Your task to perform on an android device: toggle improve location accuracy Image 0: 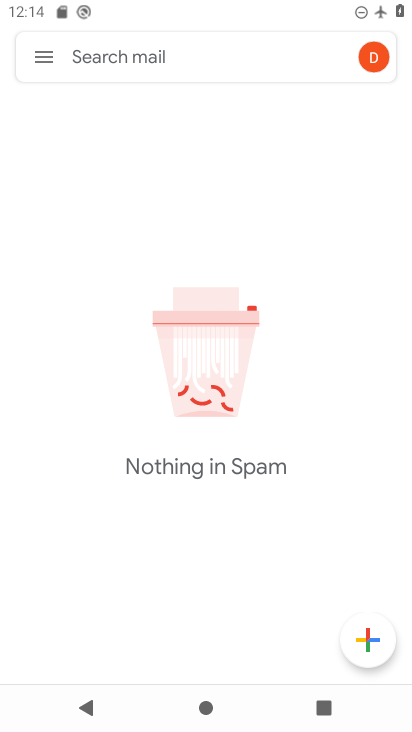
Step 0: press home button
Your task to perform on an android device: toggle improve location accuracy Image 1: 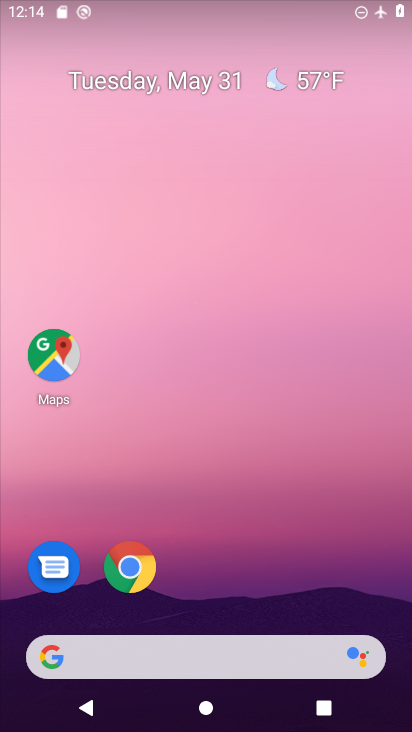
Step 1: drag from (222, 580) to (199, 120)
Your task to perform on an android device: toggle improve location accuracy Image 2: 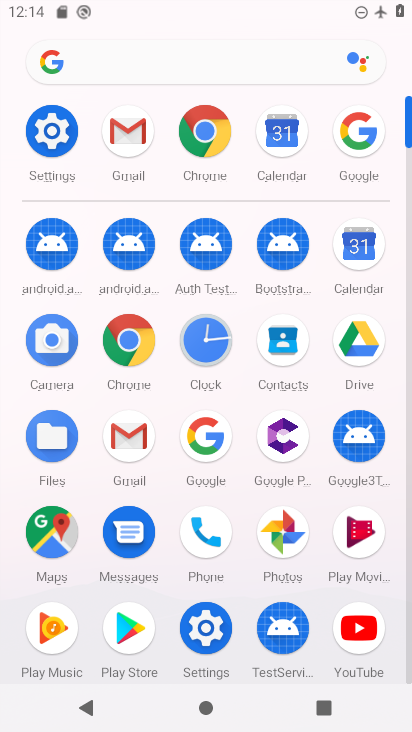
Step 2: click (53, 145)
Your task to perform on an android device: toggle improve location accuracy Image 3: 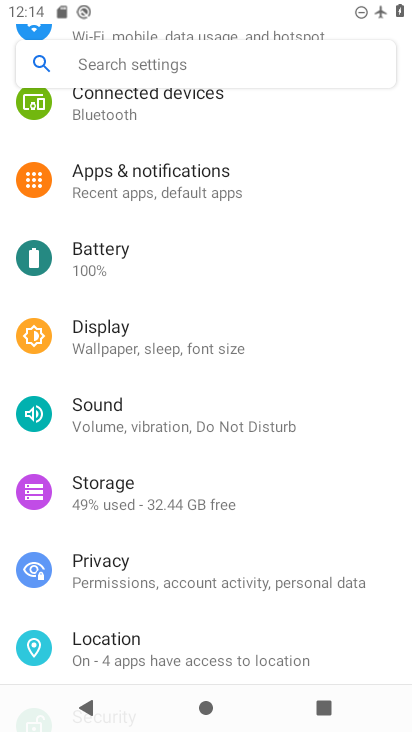
Step 3: drag from (122, 650) to (128, 455)
Your task to perform on an android device: toggle improve location accuracy Image 4: 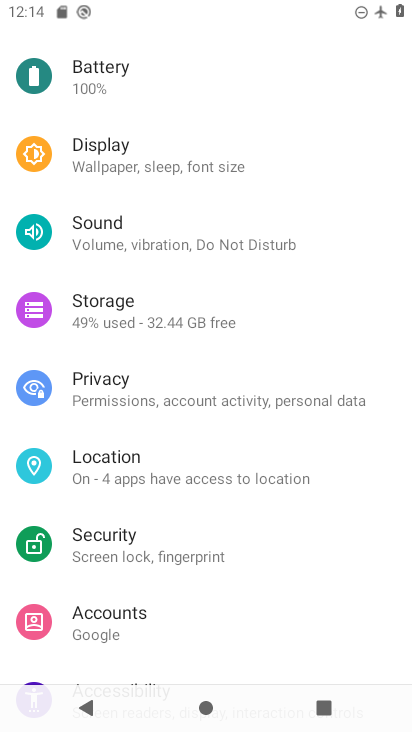
Step 4: click (128, 457)
Your task to perform on an android device: toggle improve location accuracy Image 5: 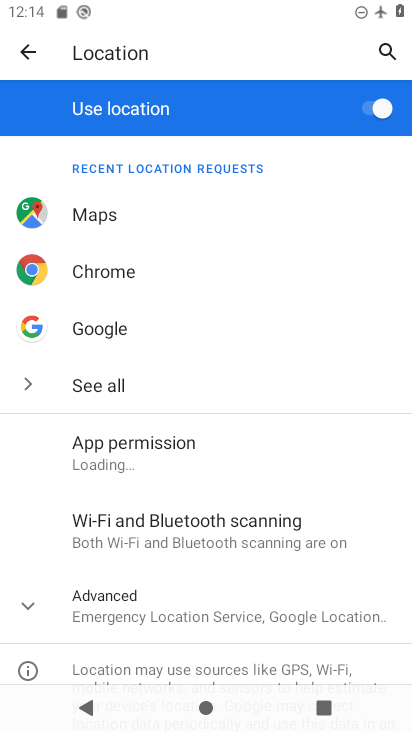
Step 5: click (157, 615)
Your task to perform on an android device: toggle improve location accuracy Image 6: 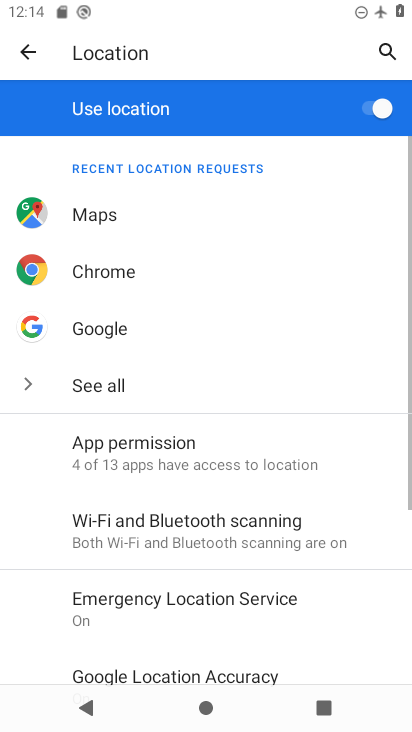
Step 6: drag from (180, 581) to (186, 287)
Your task to perform on an android device: toggle improve location accuracy Image 7: 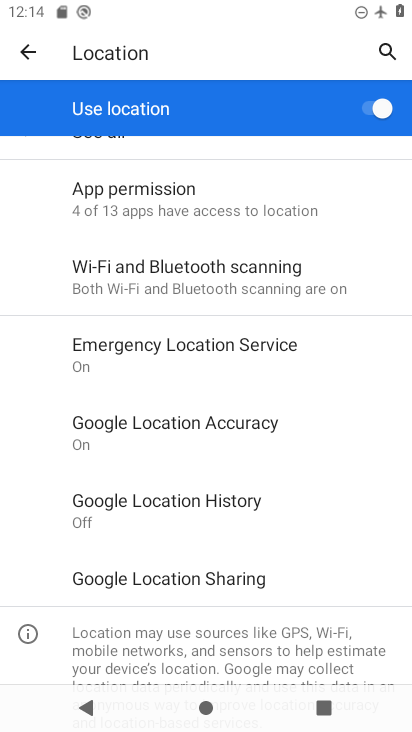
Step 7: click (190, 432)
Your task to perform on an android device: toggle improve location accuracy Image 8: 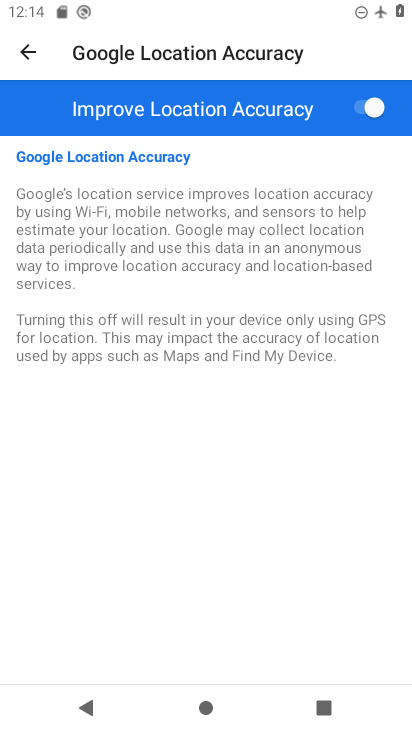
Step 8: click (360, 103)
Your task to perform on an android device: toggle improve location accuracy Image 9: 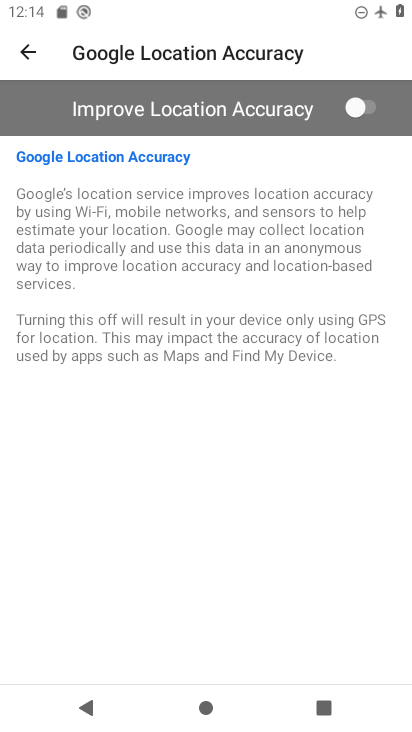
Step 9: task complete